Your task to perform on an android device: Show me productivity apps on the Play Store Image 0: 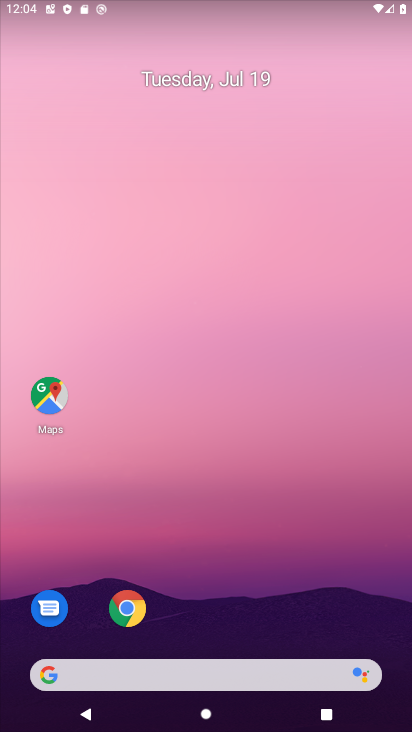
Step 0: click (299, 204)
Your task to perform on an android device: Show me productivity apps on the Play Store Image 1: 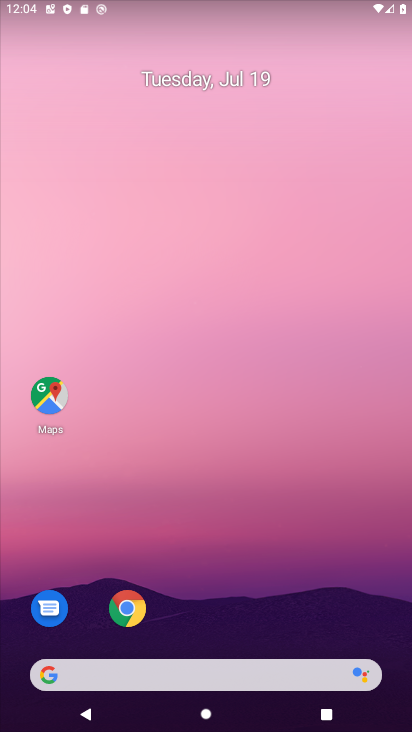
Step 1: drag from (215, 650) to (238, 240)
Your task to perform on an android device: Show me productivity apps on the Play Store Image 2: 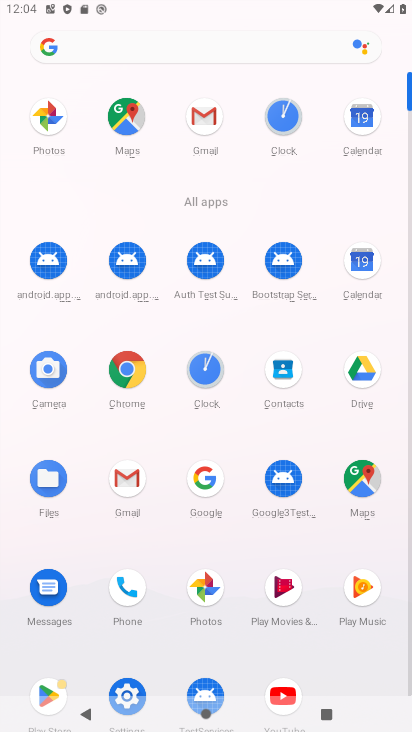
Step 2: click (51, 684)
Your task to perform on an android device: Show me productivity apps on the Play Store Image 3: 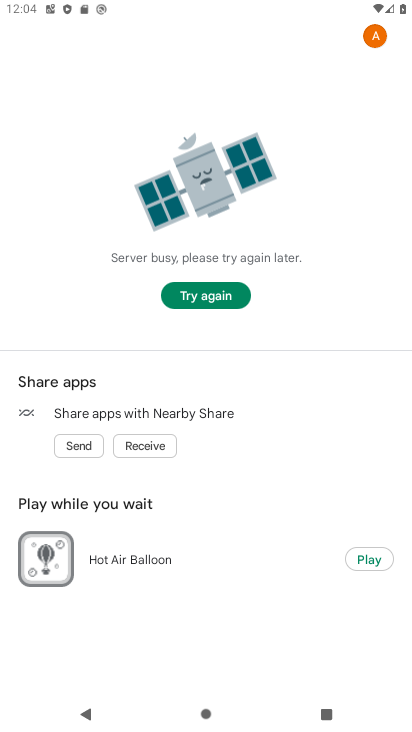
Step 3: task complete